Your task to perform on an android device: Open the map Image 0: 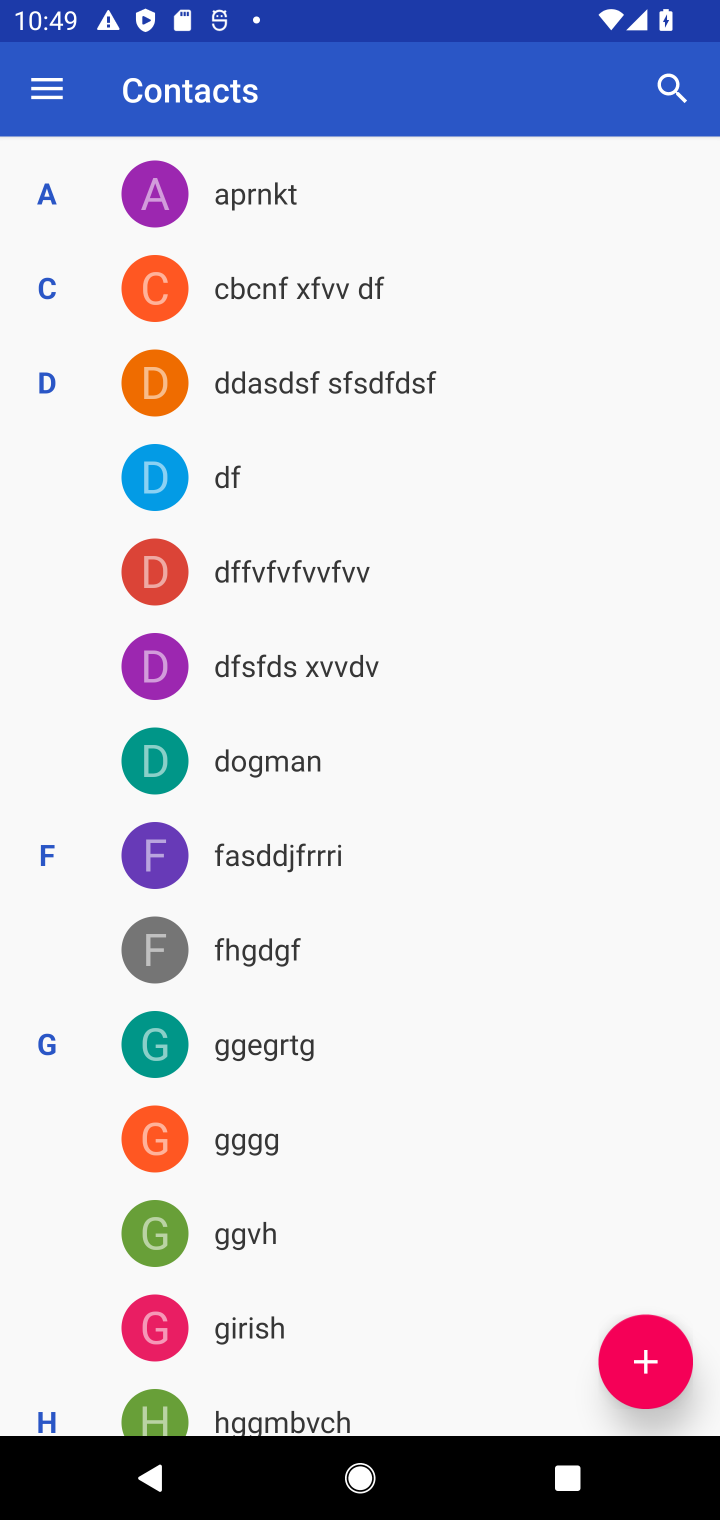
Step 0: press home button
Your task to perform on an android device: Open the map Image 1: 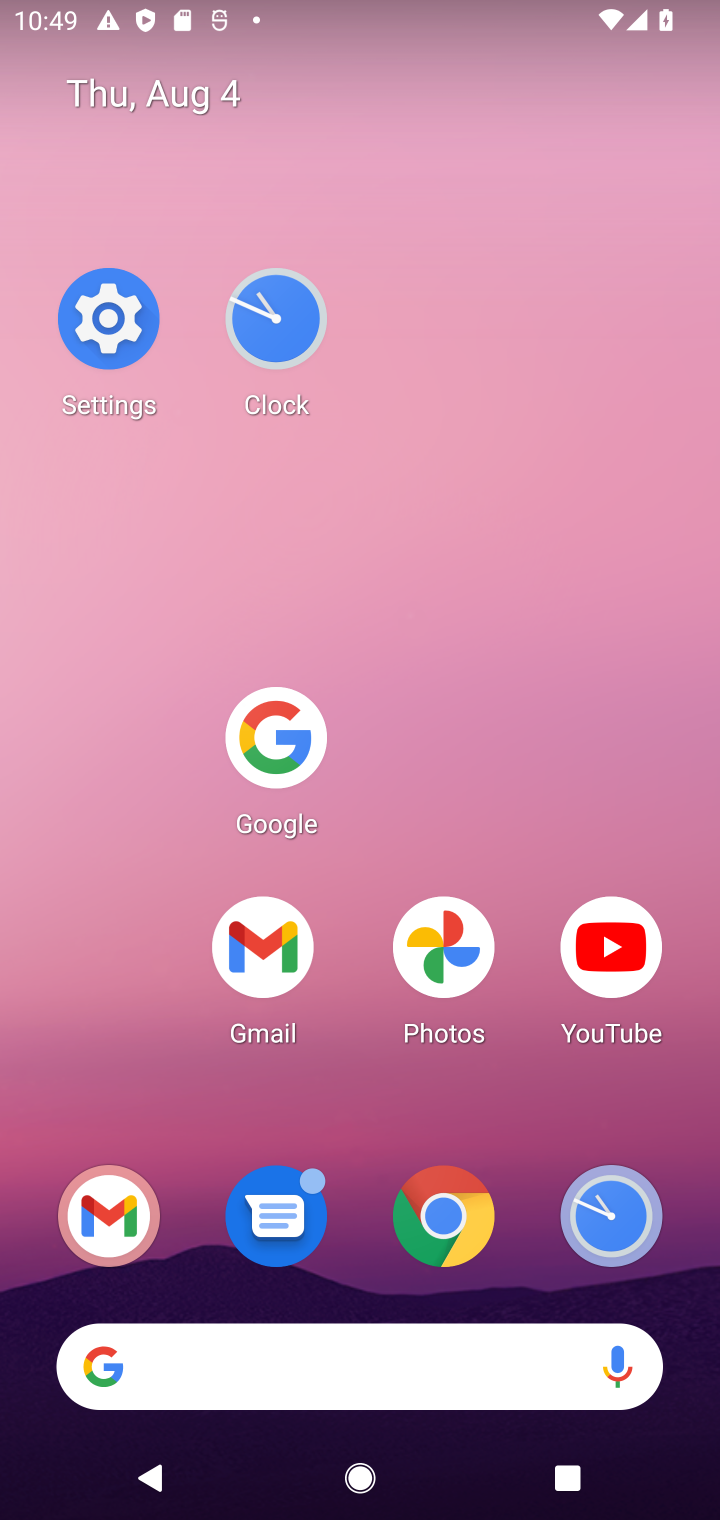
Step 1: drag from (370, 1121) to (372, 302)
Your task to perform on an android device: Open the map Image 2: 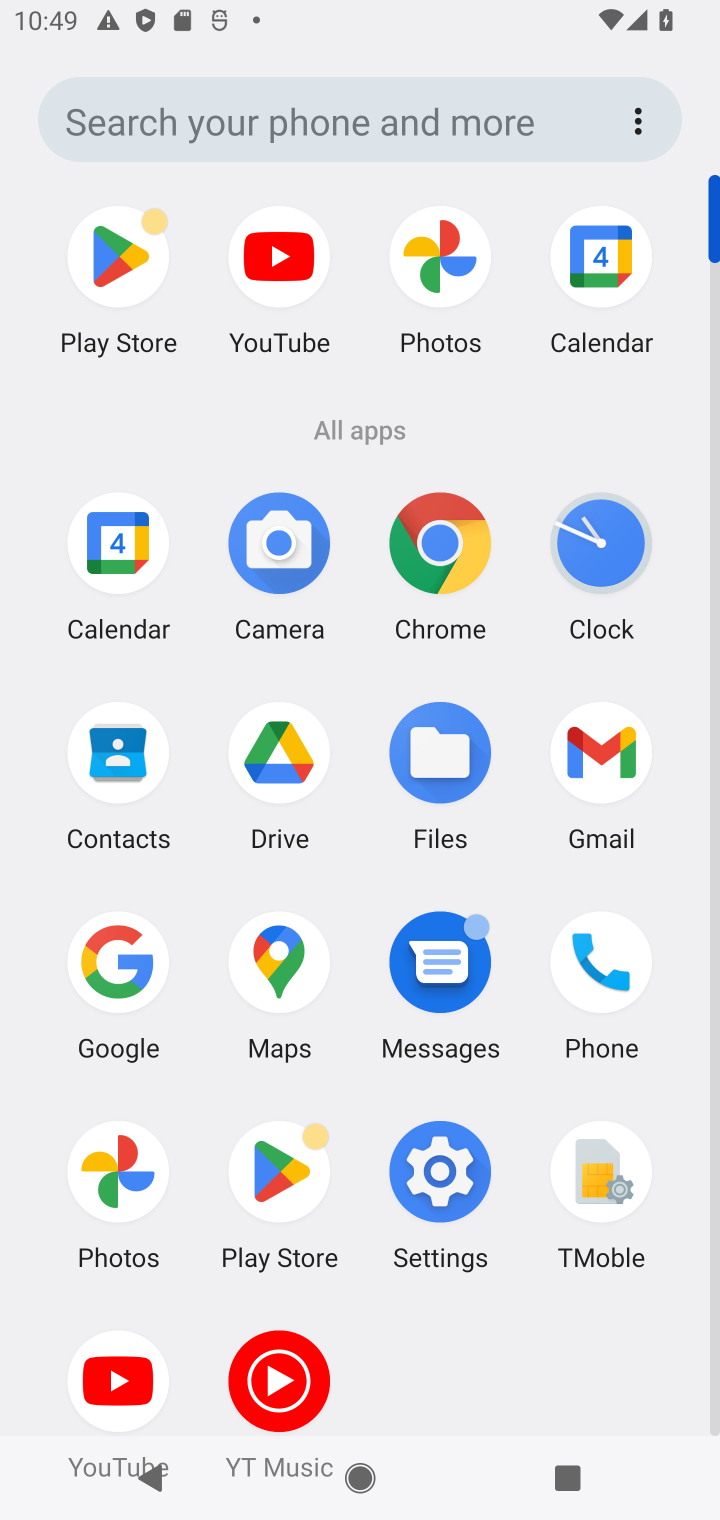
Step 2: drag from (289, 952) to (170, 762)
Your task to perform on an android device: Open the map Image 3: 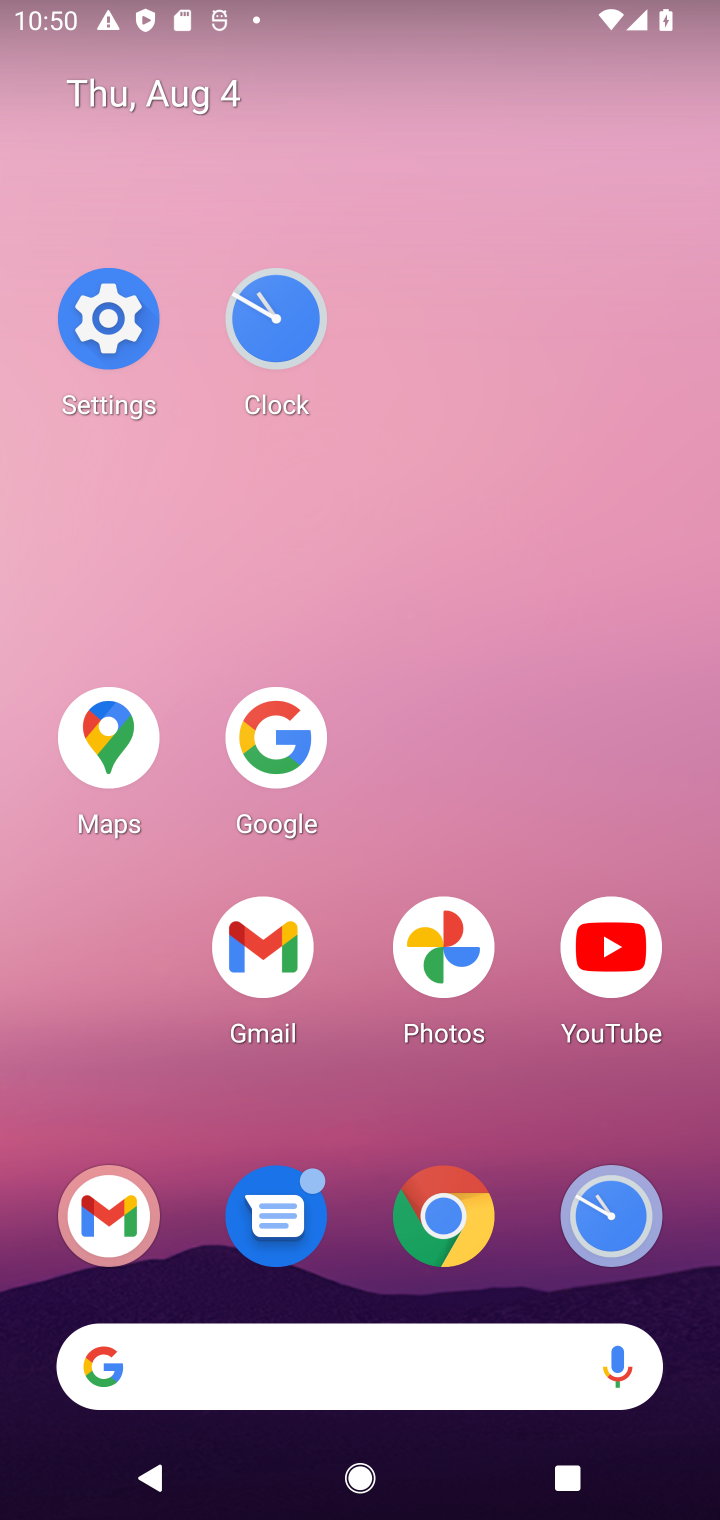
Step 3: click (130, 730)
Your task to perform on an android device: Open the map Image 4: 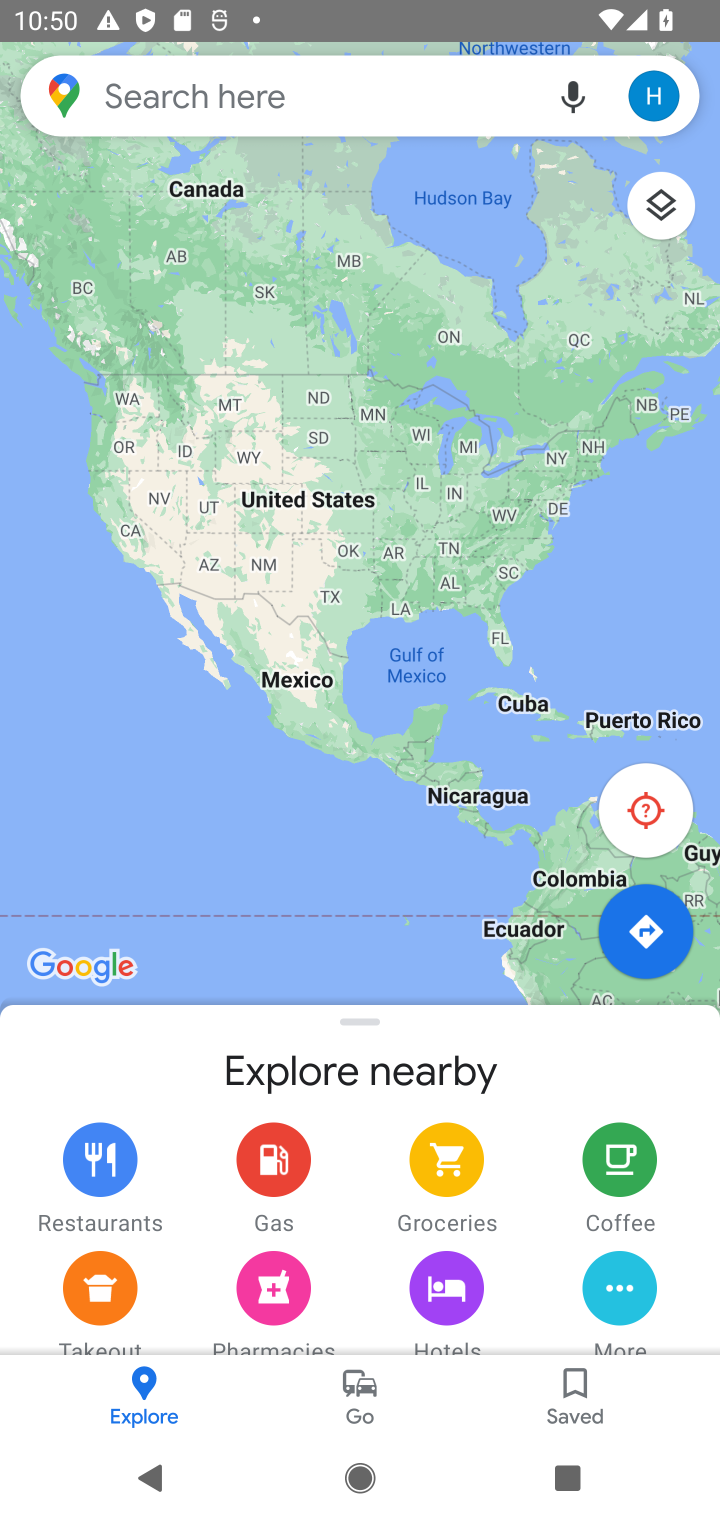
Step 4: task complete